Your task to perform on an android device: open app "PlayWell" Image 0: 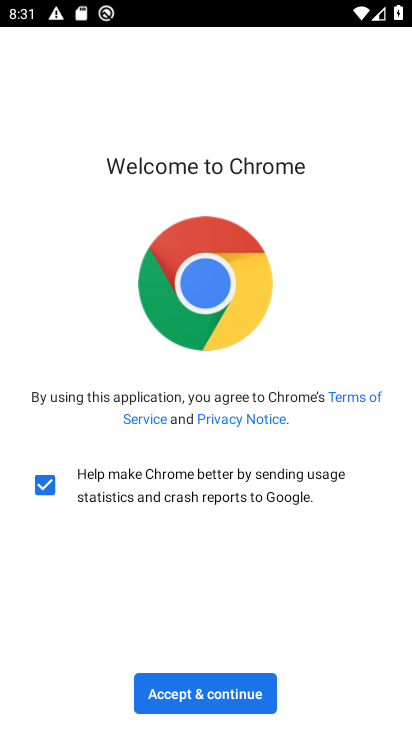
Step 0: press home button
Your task to perform on an android device: open app "PlayWell" Image 1: 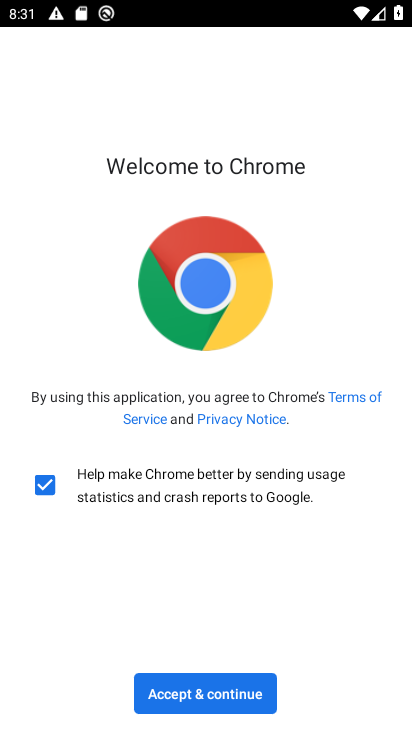
Step 1: press home button
Your task to perform on an android device: open app "PlayWell" Image 2: 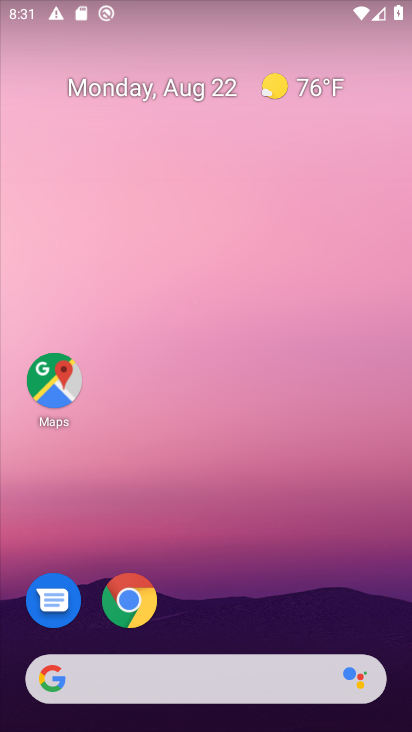
Step 2: drag from (233, 582) to (242, 94)
Your task to perform on an android device: open app "PlayWell" Image 3: 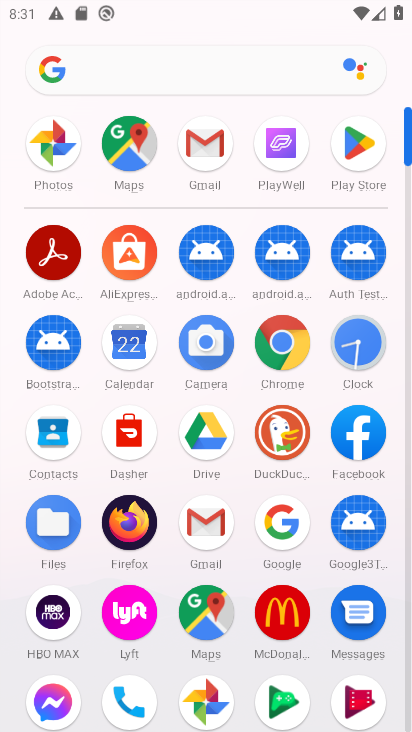
Step 3: click (348, 124)
Your task to perform on an android device: open app "PlayWell" Image 4: 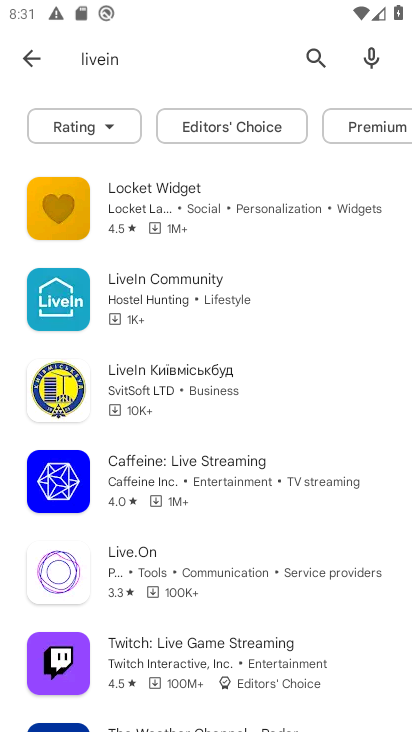
Step 4: click (316, 52)
Your task to perform on an android device: open app "PlayWell" Image 5: 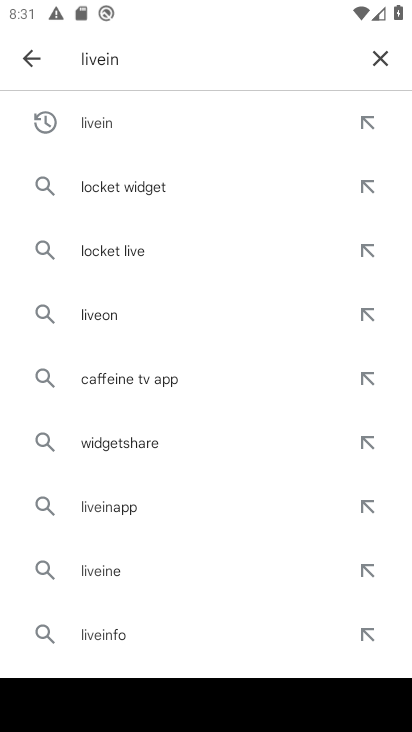
Step 5: click (377, 49)
Your task to perform on an android device: open app "PlayWell" Image 6: 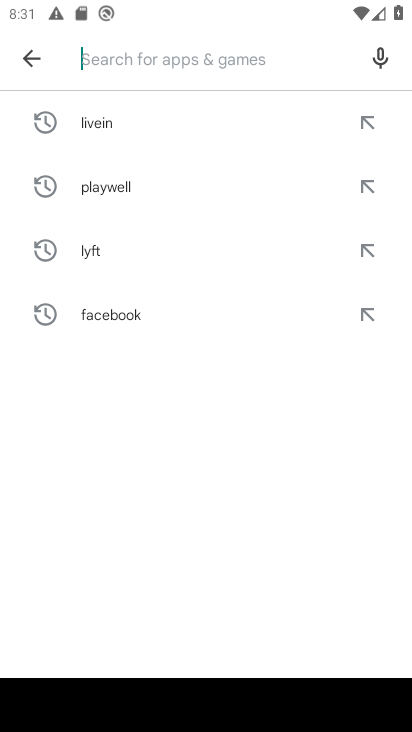
Step 6: type "PlayWell"
Your task to perform on an android device: open app "PlayWell" Image 7: 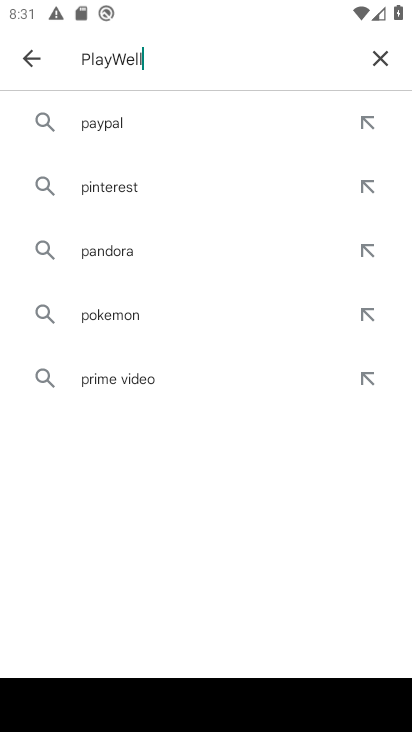
Step 7: type ""
Your task to perform on an android device: open app "PlayWell" Image 8: 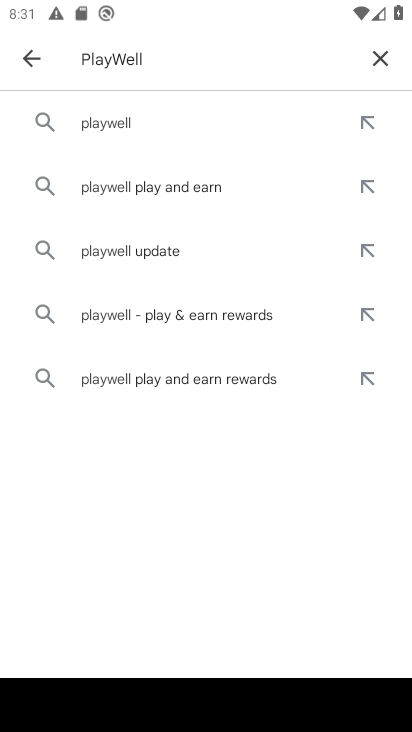
Step 8: click (139, 117)
Your task to perform on an android device: open app "PlayWell" Image 9: 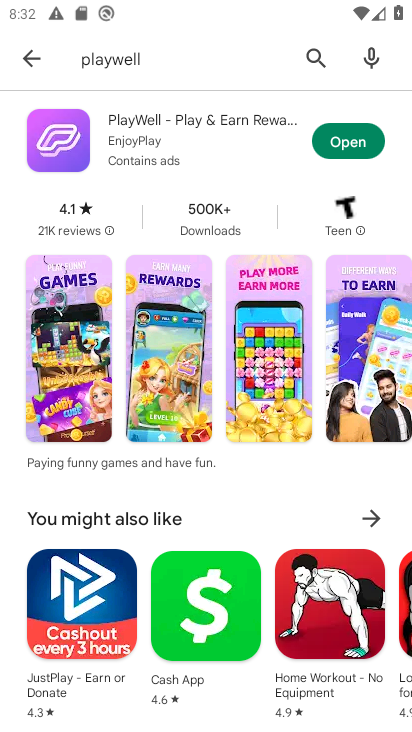
Step 9: click (360, 144)
Your task to perform on an android device: open app "PlayWell" Image 10: 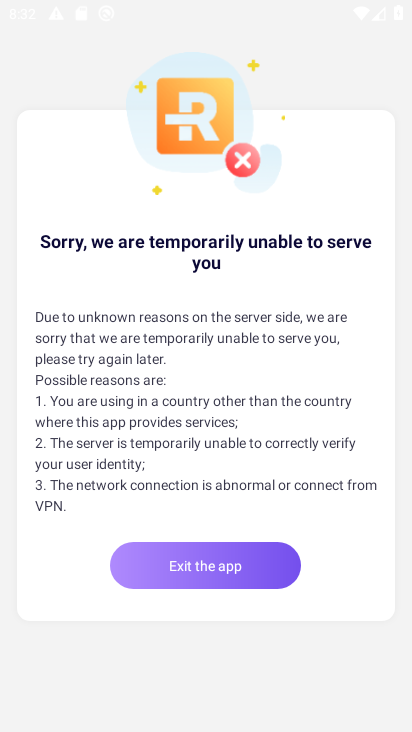
Step 10: task complete